Your task to perform on an android device: toggle priority inbox in the gmail app Image 0: 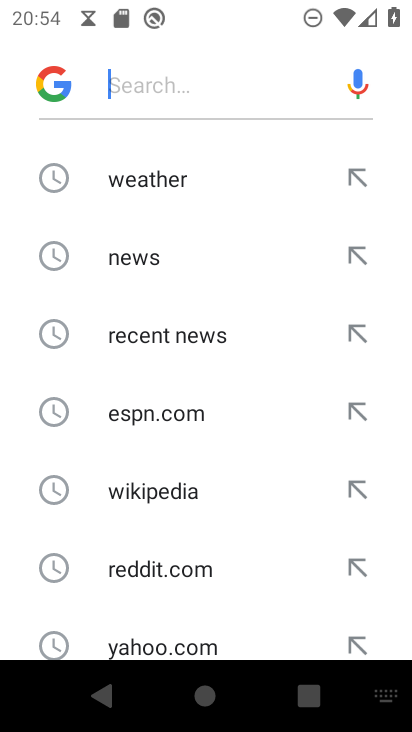
Step 0: press back button
Your task to perform on an android device: toggle priority inbox in the gmail app Image 1: 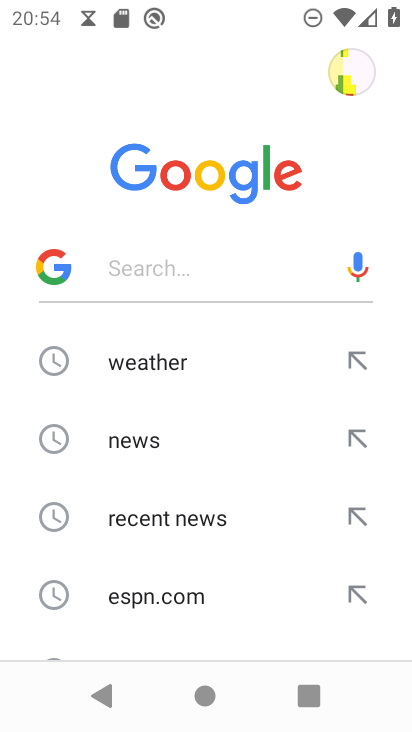
Step 1: press back button
Your task to perform on an android device: toggle priority inbox in the gmail app Image 2: 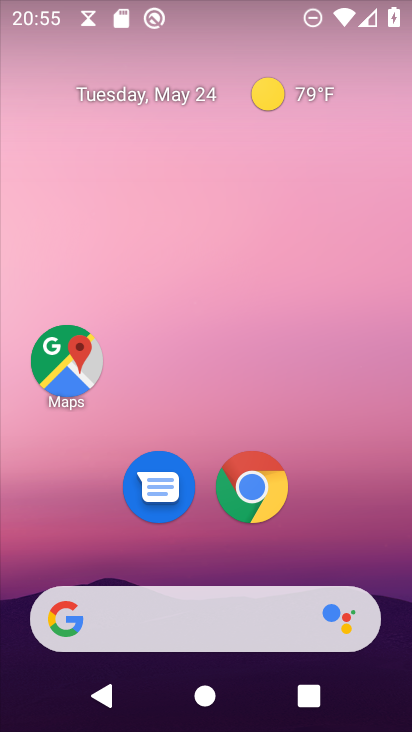
Step 2: drag from (24, 533) to (233, 116)
Your task to perform on an android device: toggle priority inbox in the gmail app Image 3: 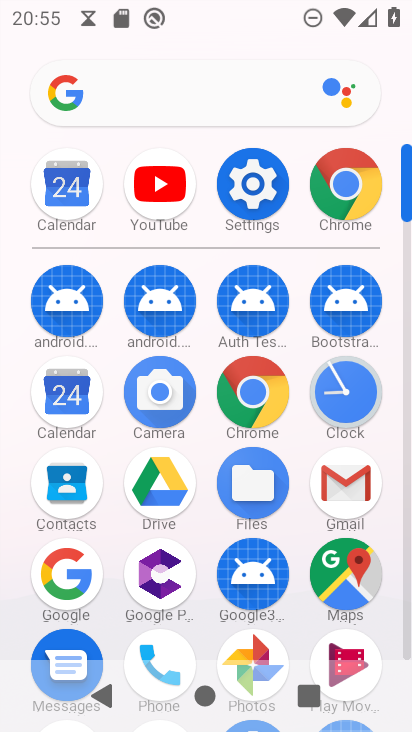
Step 3: click (367, 484)
Your task to perform on an android device: toggle priority inbox in the gmail app Image 4: 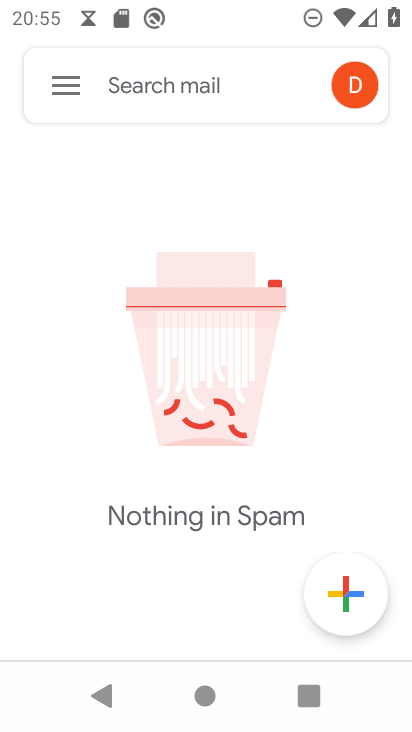
Step 4: click (53, 87)
Your task to perform on an android device: toggle priority inbox in the gmail app Image 5: 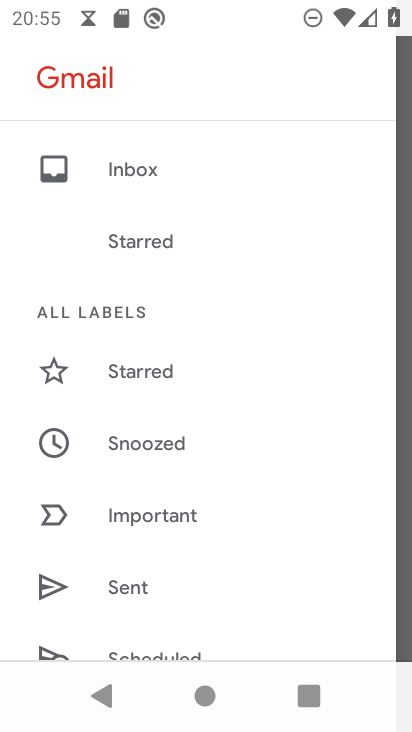
Step 5: drag from (42, 623) to (198, 0)
Your task to perform on an android device: toggle priority inbox in the gmail app Image 6: 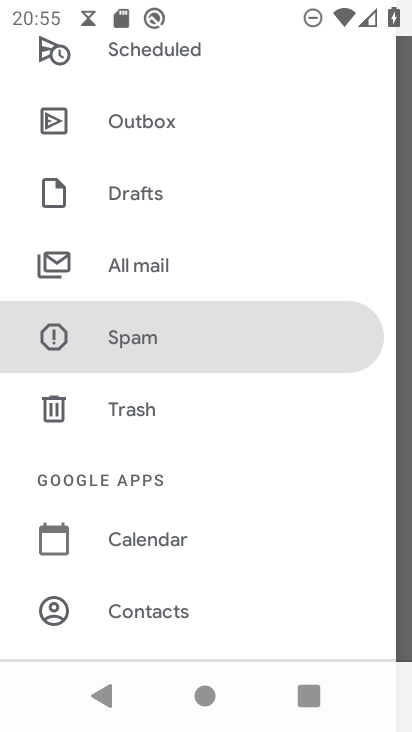
Step 6: drag from (86, 625) to (212, 121)
Your task to perform on an android device: toggle priority inbox in the gmail app Image 7: 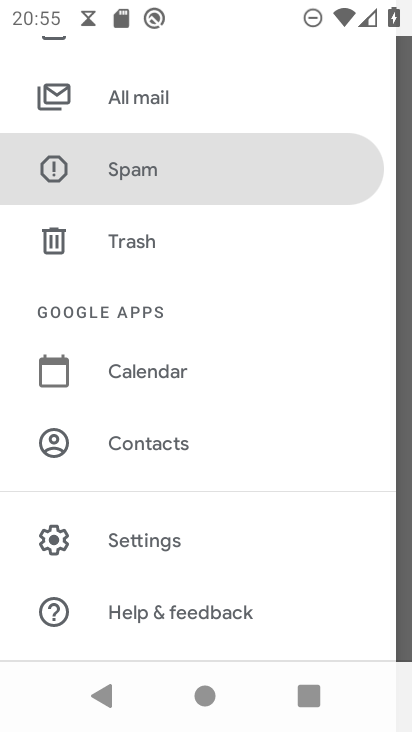
Step 7: click (155, 536)
Your task to perform on an android device: toggle priority inbox in the gmail app Image 8: 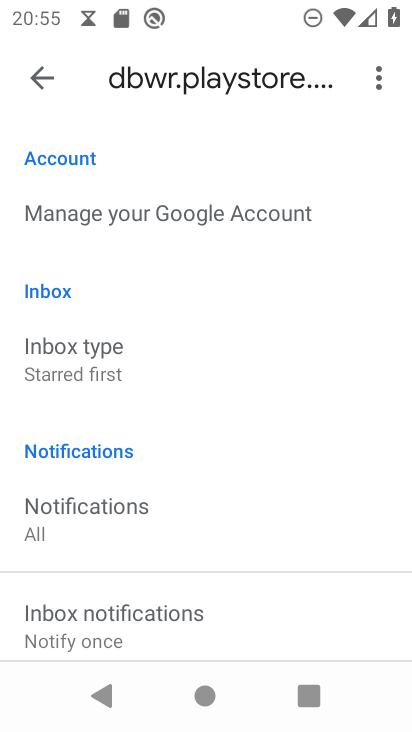
Step 8: click (74, 357)
Your task to perform on an android device: toggle priority inbox in the gmail app Image 9: 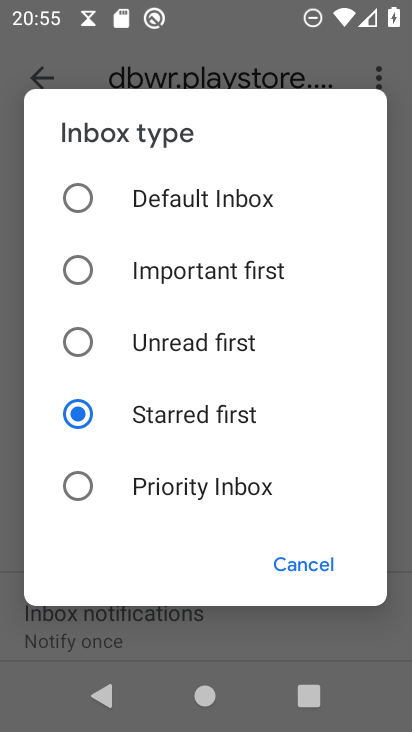
Step 9: click (88, 486)
Your task to perform on an android device: toggle priority inbox in the gmail app Image 10: 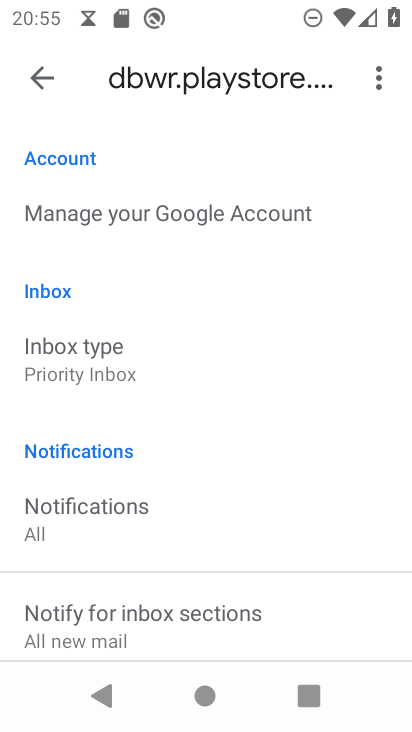
Step 10: task complete